Your task to perform on an android device: turn on airplane mode Image 0: 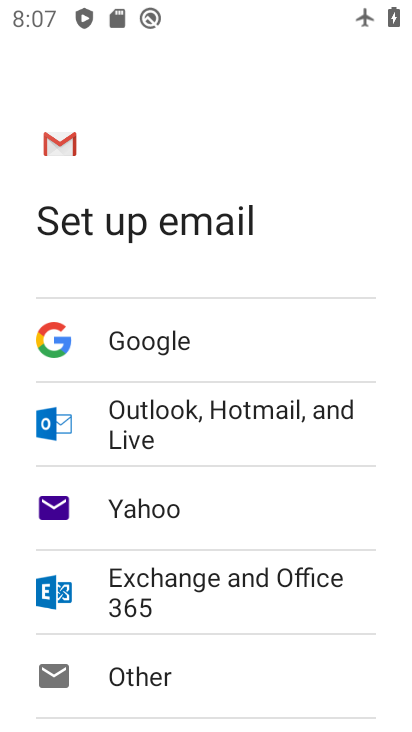
Step 0: press home button
Your task to perform on an android device: turn on airplane mode Image 1: 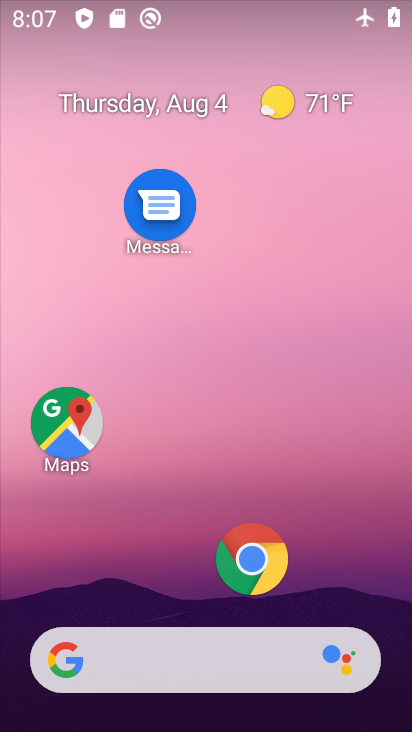
Step 1: drag from (205, 564) to (265, 6)
Your task to perform on an android device: turn on airplane mode Image 2: 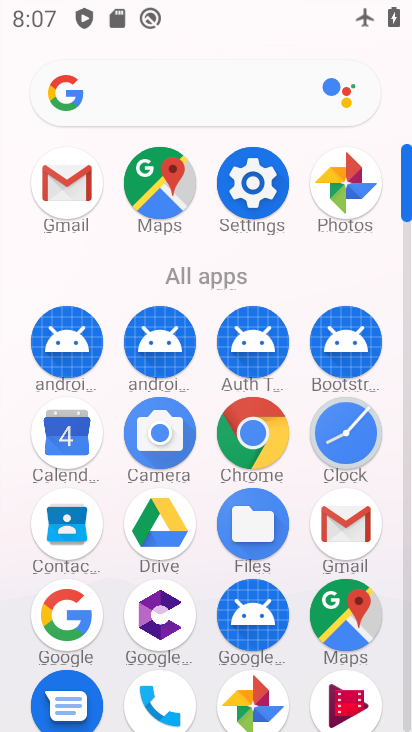
Step 2: click (267, 224)
Your task to perform on an android device: turn on airplane mode Image 3: 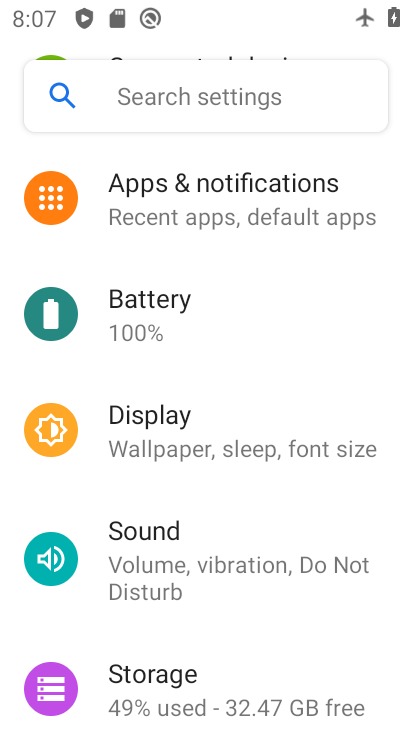
Step 3: drag from (224, 203) to (256, 537)
Your task to perform on an android device: turn on airplane mode Image 4: 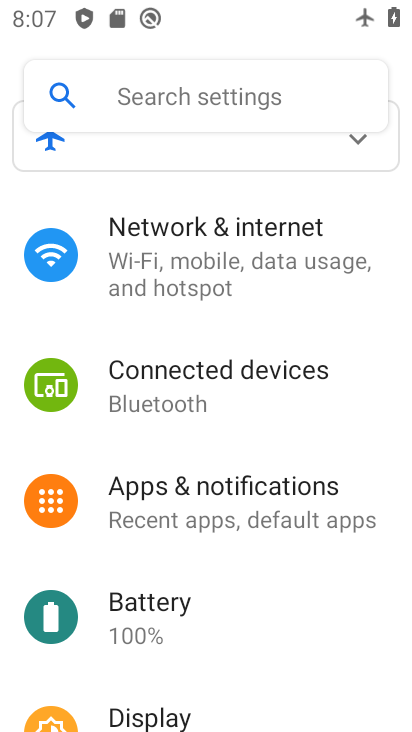
Step 4: click (199, 277)
Your task to perform on an android device: turn on airplane mode Image 5: 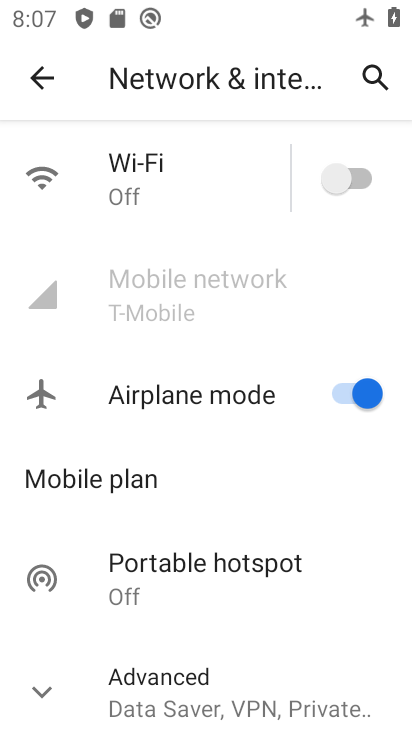
Step 5: task complete